Your task to perform on an android device: Empty the shopping cart on amazon. Search for razer naga on amazon, select the first entry, add it to the cart, then select checkout. Image 0: 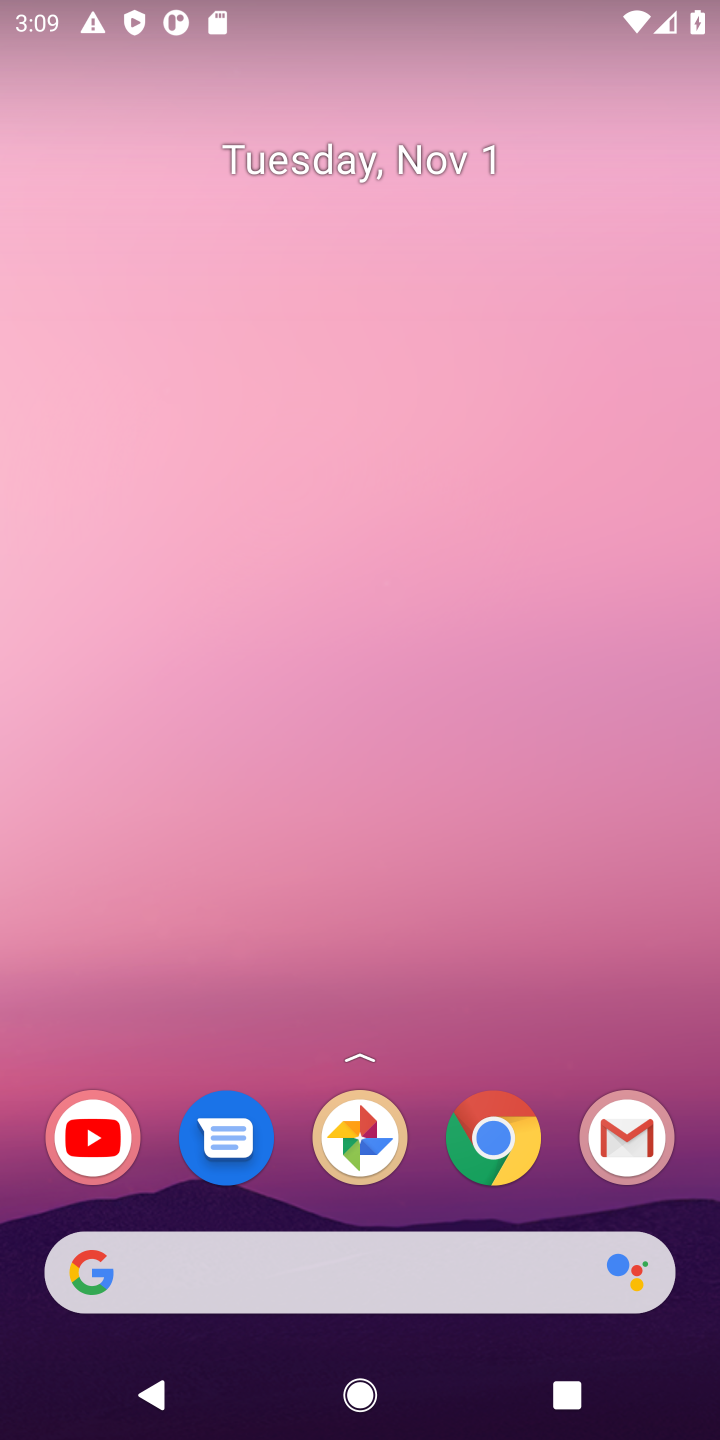
Step 0: click (494, 1135)
Your task to perform on an android device: Empty the shopping cart on amazon. Search for razer naga on amazon, select the first entry, add it to the cart, then select checkout. Image 1: 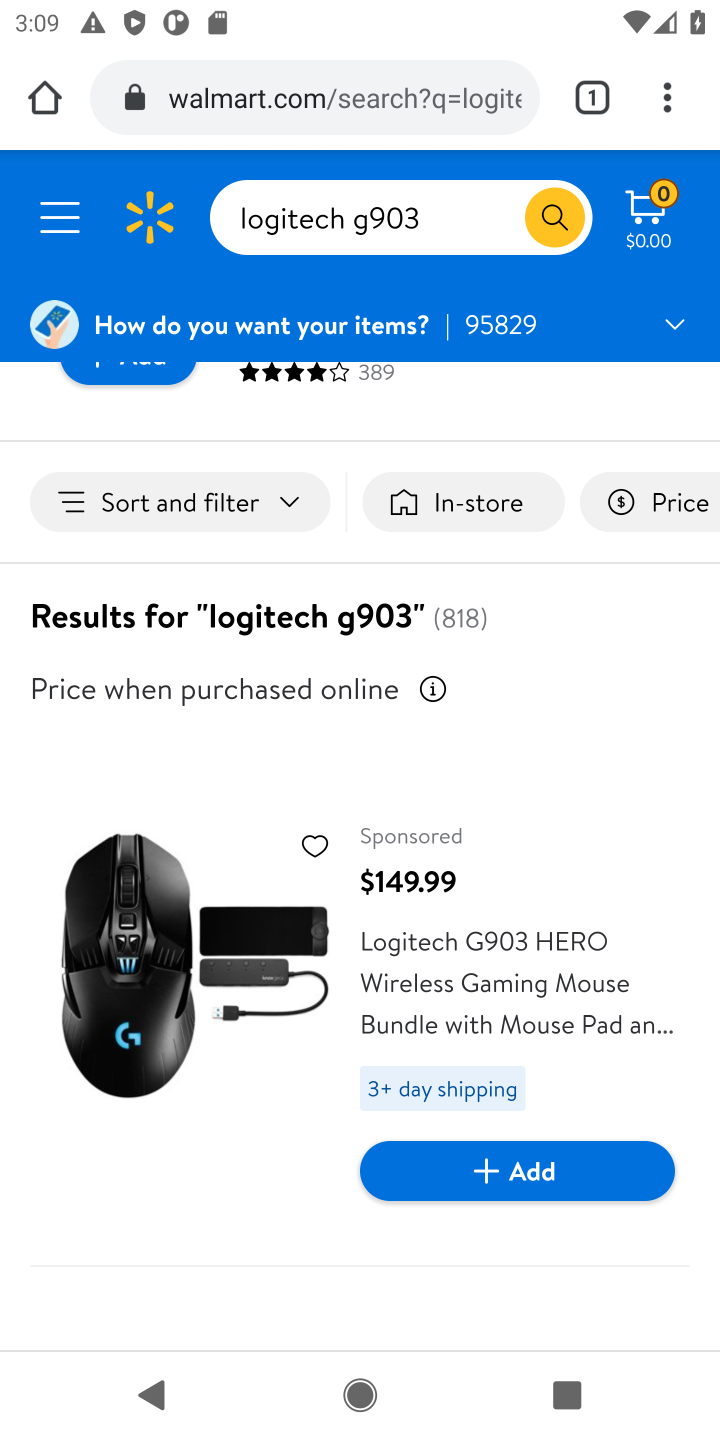
Step 1: click (371, 91)
Your task to perform on an android device: Empty the shopping cart on amazon. Search for razer naga on amazon, select the first entry, add it to the cart, then select checkout. Image 2: 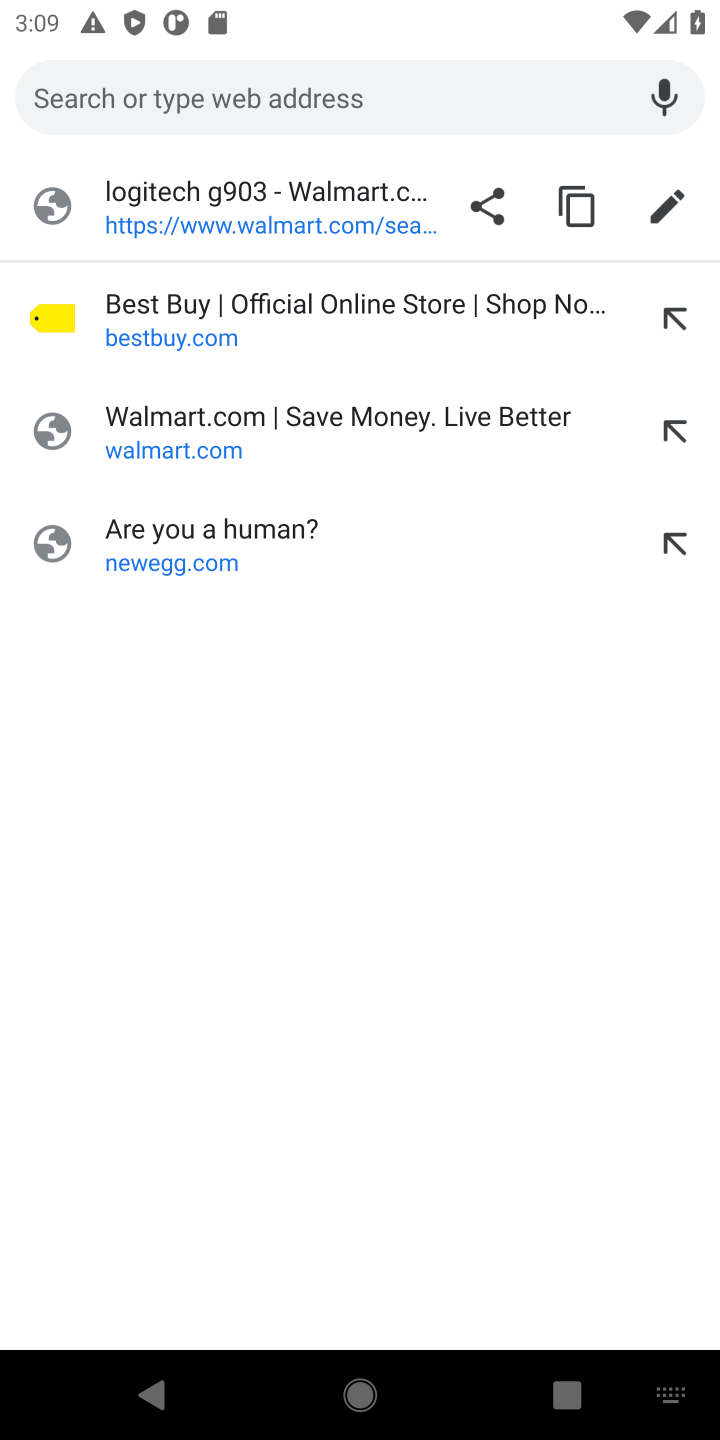
Step 2: type "amazon"
Your task to perform on an android device: Empty the shopping cart on amazon. Search for razer naga on amazon, select the first entry, add it to the cart, then select checkout. Image 3: 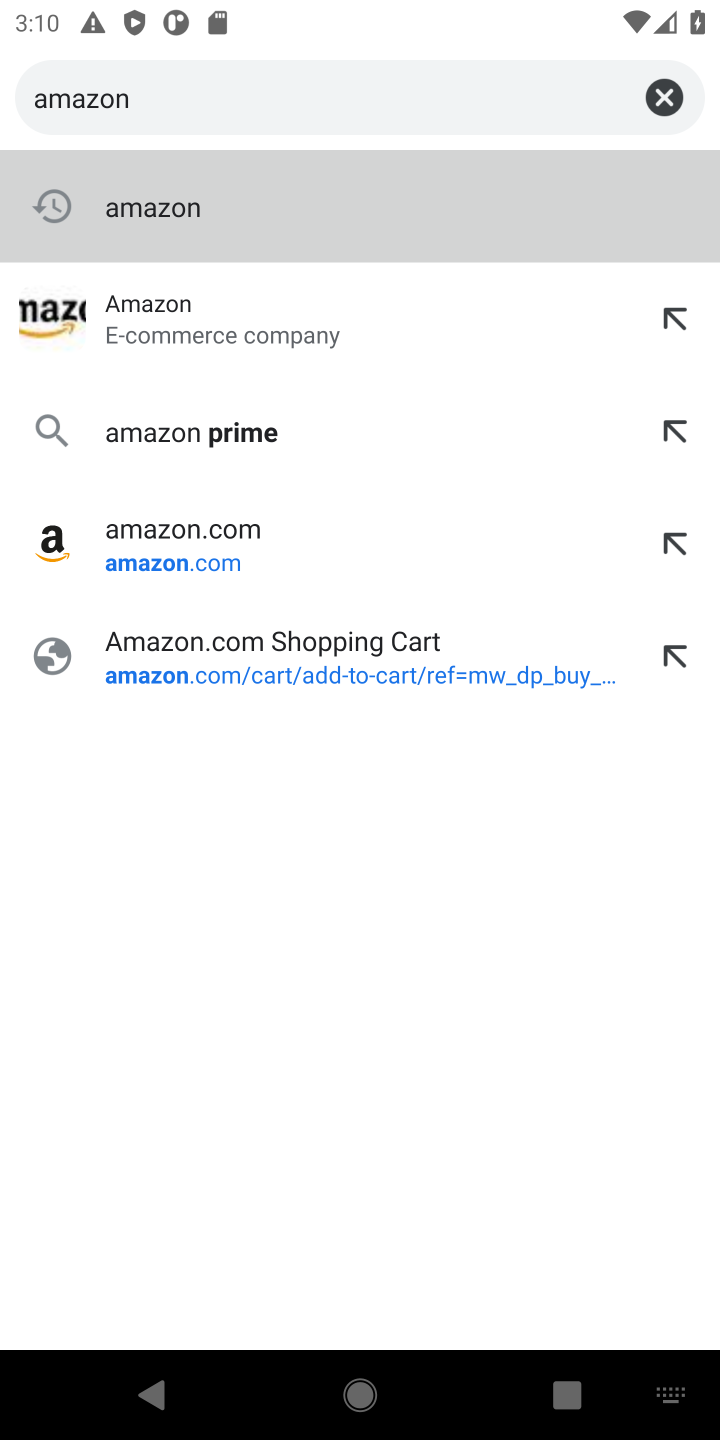
Step 3: click (282, 333)
Your task to perform on an android device: Empty the shopping cart on amazon. Search for razer naga on amazon, select the first entry, add it to the cart, then select checkout. Image 4: 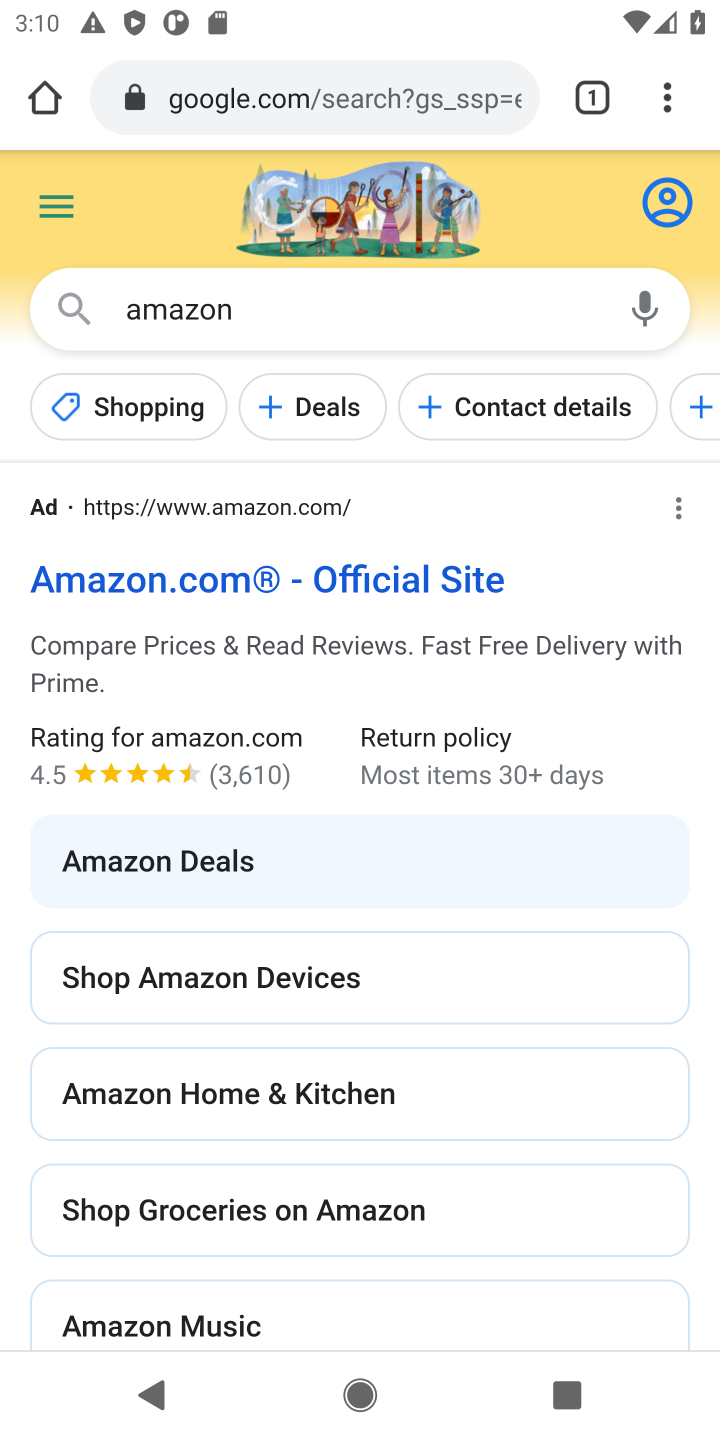
Step 4: click (177, 587)
Your task to perform on an android device: Empty the shopping cart on amazon. Search for razer naga on amazon, select the first entry, add it to the cart, then select checkout. Image 5: 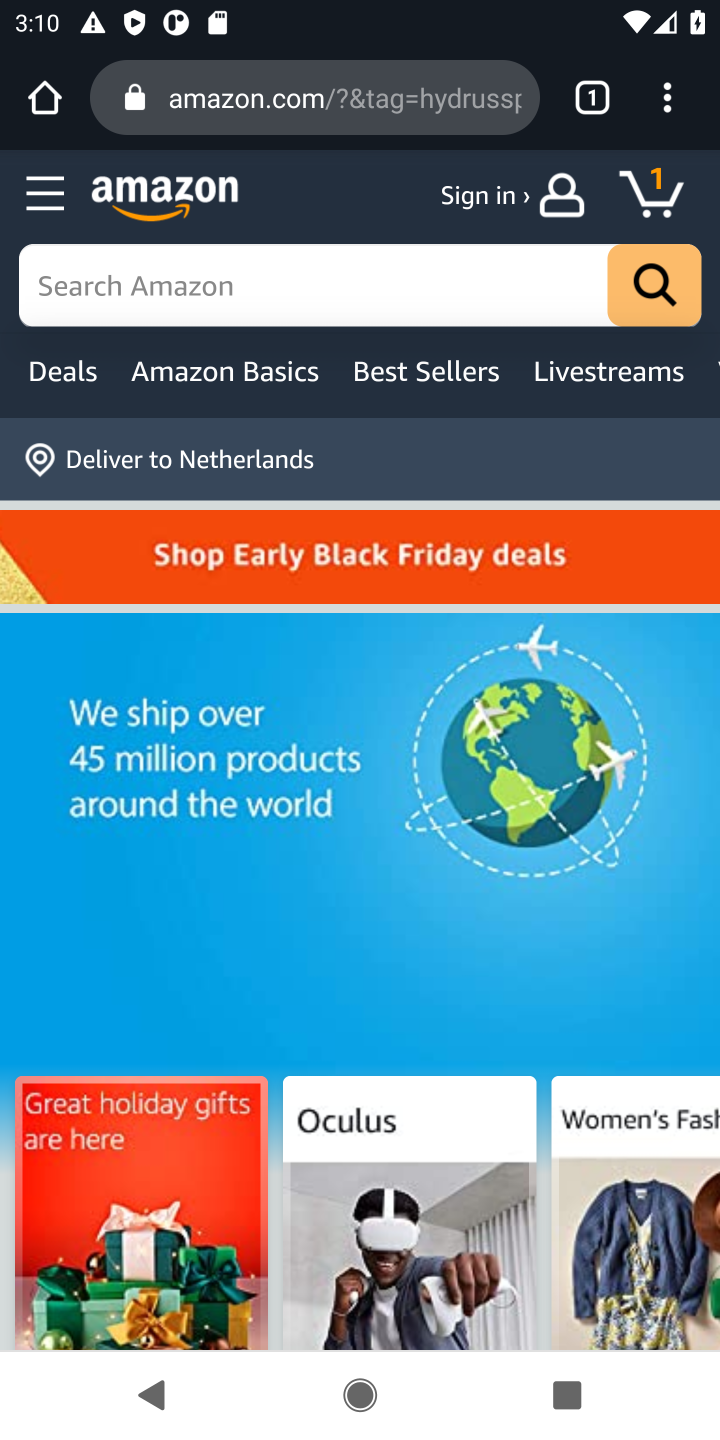
Step 5: click (641, 191)
Your task to perform on an android device: Empty the shopping cart on amazon. Search for razer naga on amazon, select the first entry, add it to the cart, then select checkout. Image 6: 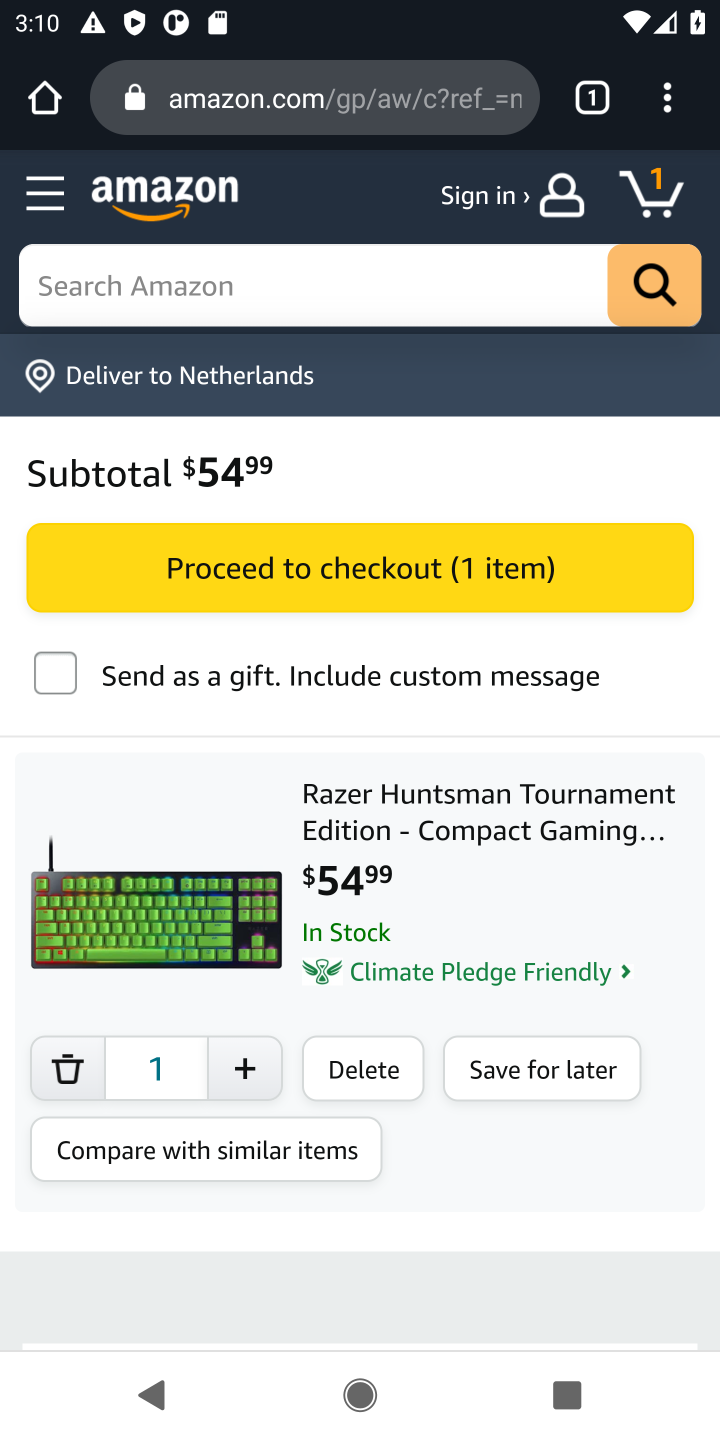
Step 6: click (368, 1067)
Your task to perform on an android device: Empty the shopping cart on amazon. Search for razer naga on amazon, select the first entry, add it to the cart, then select checkout. Image 7: 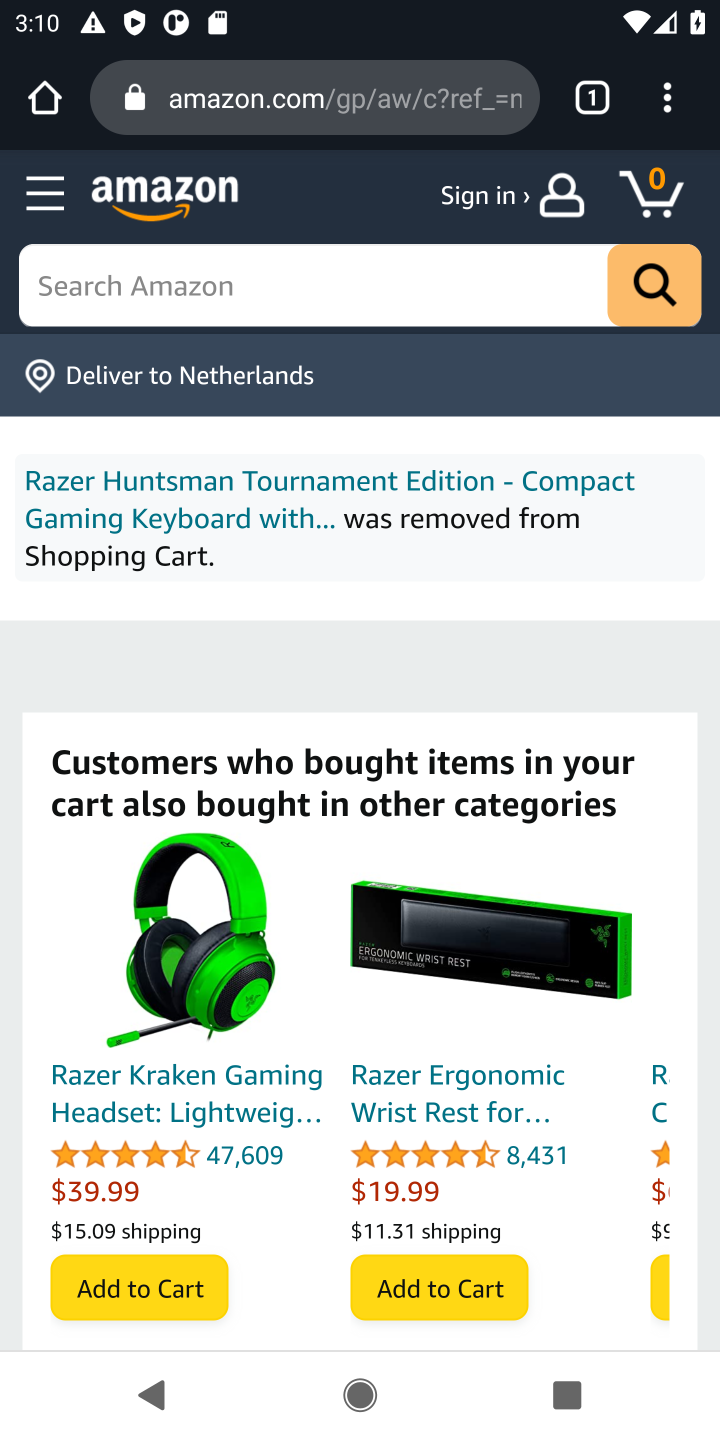
Step 7: task complete